Your task to perform on an android device: change alarm snooze length Image 0: 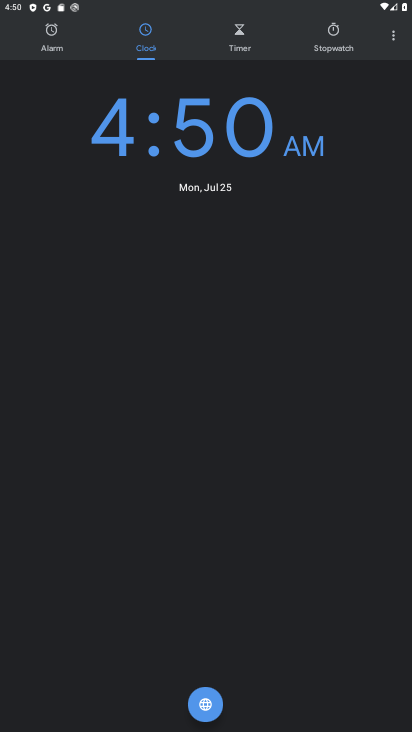
Step 0: press home button
Your task to perform on an android device: change alarm snooze length Image 1: 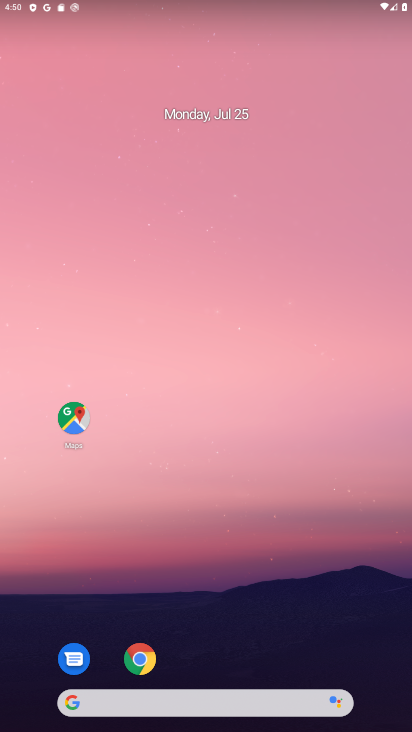
Step 1: drag from (203, 649) to (182, 173)
Your task to perform on an android device: change alarm snooze length Image 2: 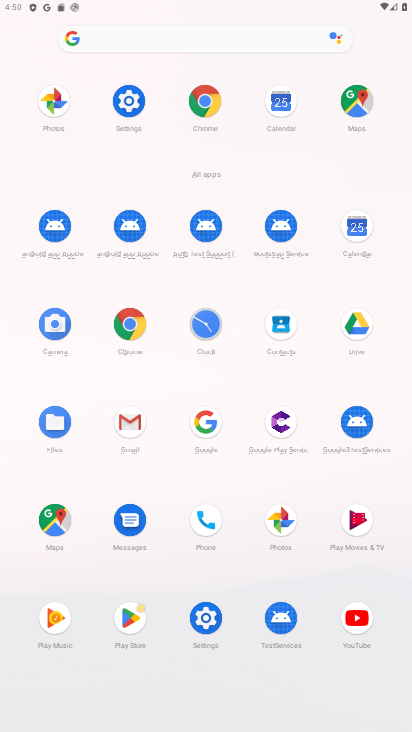
Step 2: click (204, 335)
Your task to perform on an android device: change alarm snooze length Image 3: 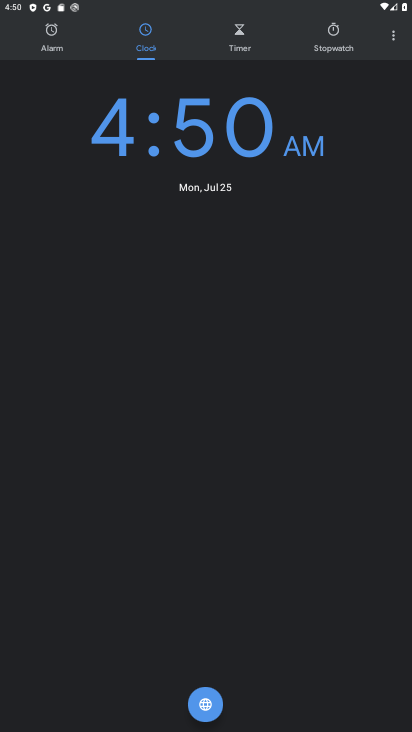
Step 3: click (395, 35)
Your task to perform on an android device: change alarm snooze length Image 4: 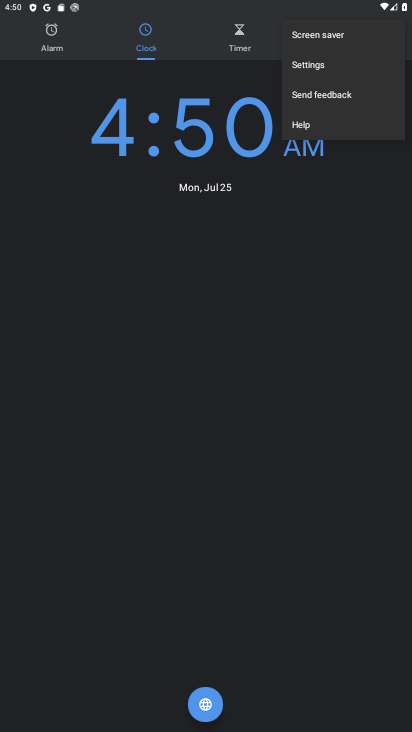
Step 4: click (309, 66)
Your task to perform on an android device: change alarm snooze length Image 5: 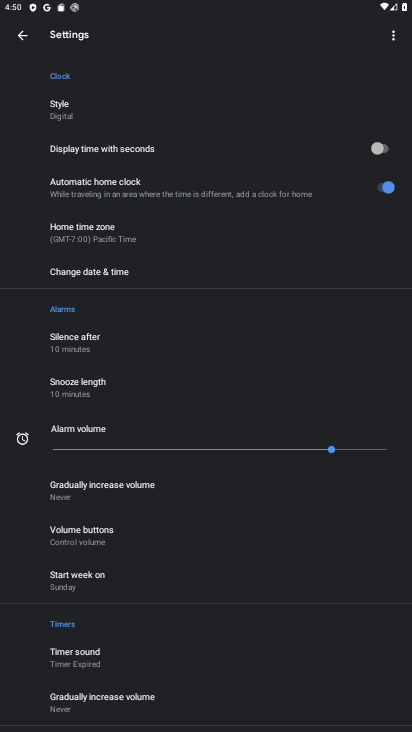
Step 5: click (85, 386)
Your task to perform on an android device: change alarm snooze length Image 6: 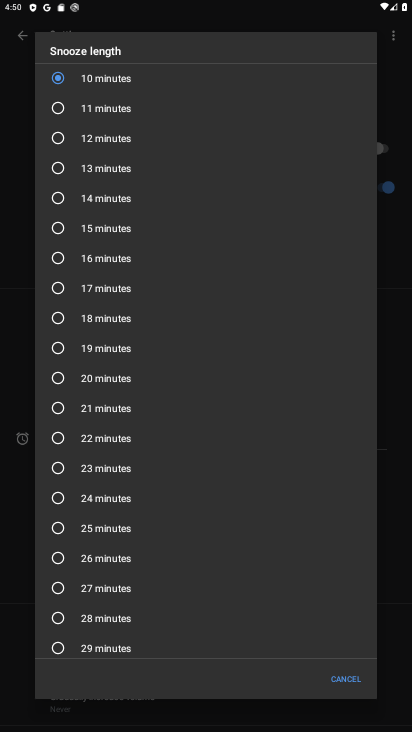
Step 6: click (50, 379)
Your task to perform on an android device: change alarm snooze length Image 7: 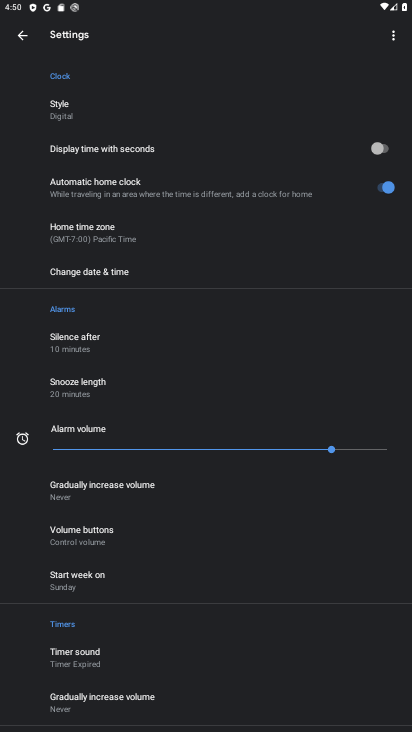
Step 7: task complete